Your task to perform on an android device: check android version Image 0: 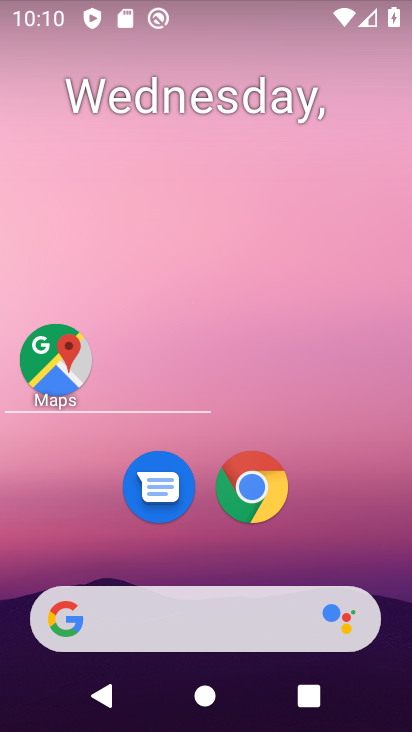
Step 0: click (218, 95)
Your task to perform on an android device: check android version Image 1: 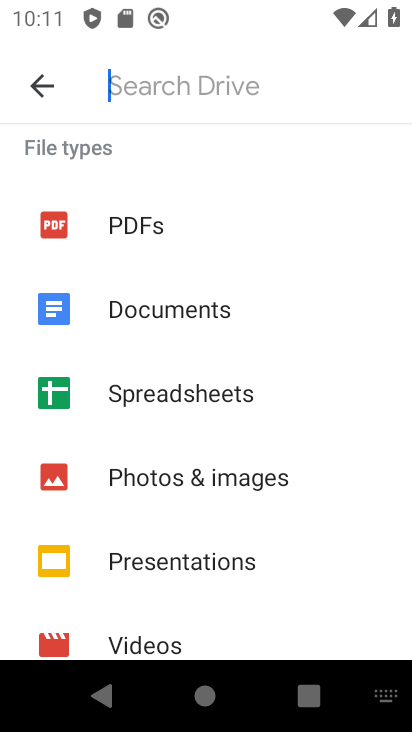
Step 1: press home button
Your task to perform on an android device: check android version Image 2: 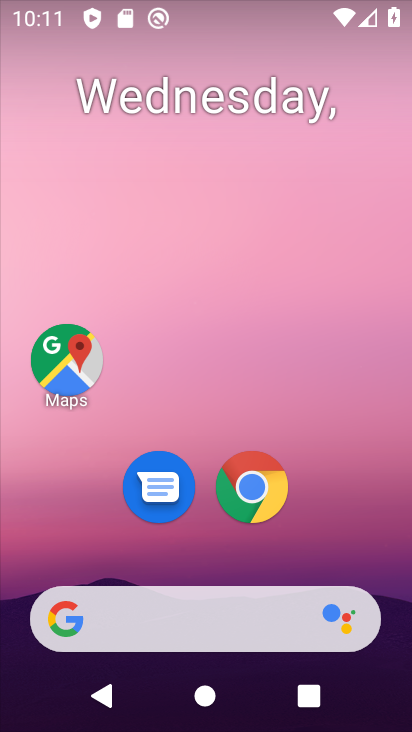
Step 2: drag from (402, 573) to (327, 127)
Your task to perform on an android device: check android version Image 3: 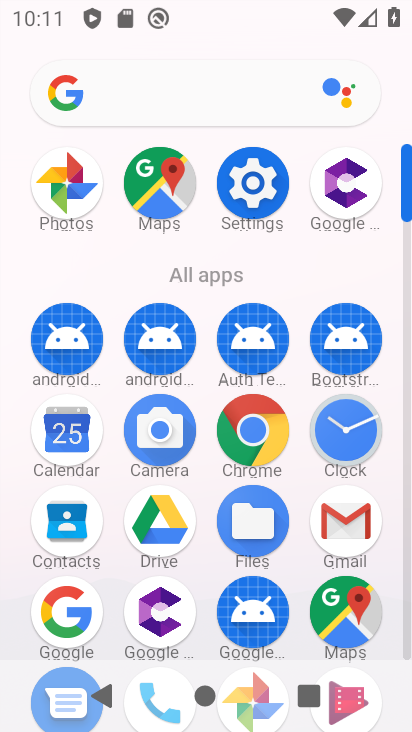
Step 3: click (273, 163)
Your task to perform on an android device: check android version Image 4: 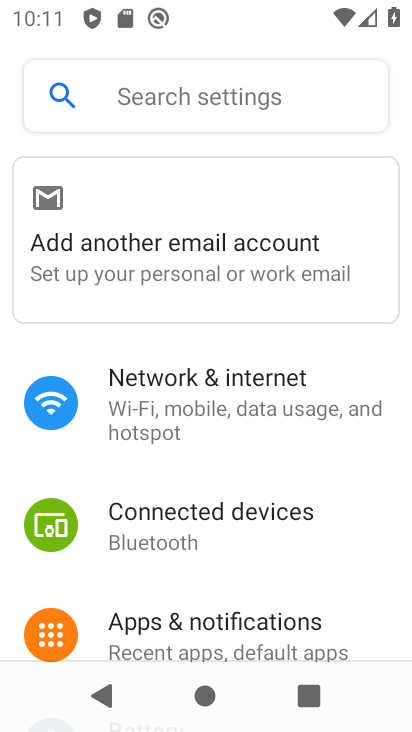
Step 4: drag from (345, 656) to (299, 316)
Your task to perform on an android device: check android version Image 5: 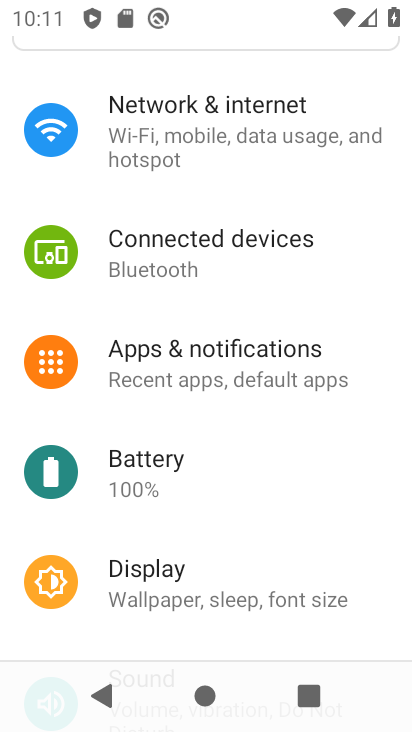
Step 5: drag from (285, 623) to (205, 58)
Your task to perform on an android device: check android version Image 6: 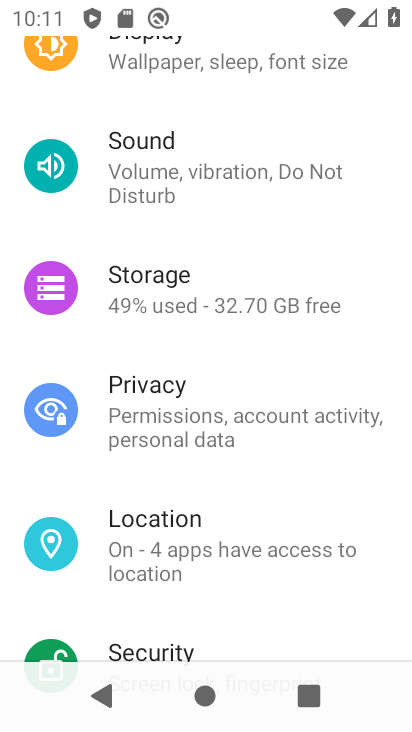
Step 6: drag from (181, 616) to (200, 16)
Your task to perform on an android device: check android version Image 7: 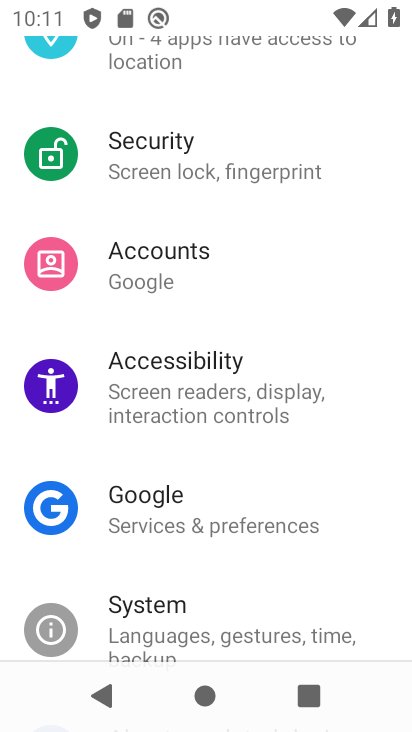
Step 7: drag from (199, 591) to (214, 180)
Your task to perform on an android device: check android version Image 8: 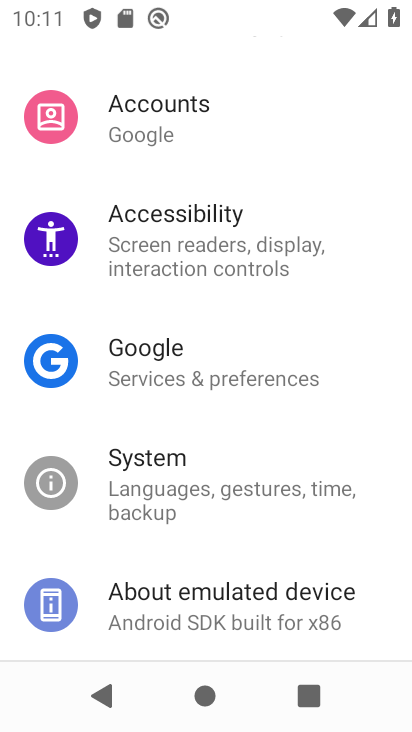
Step 8: click (236, 610)
Your task to perform on an android device: check android version Image 9: 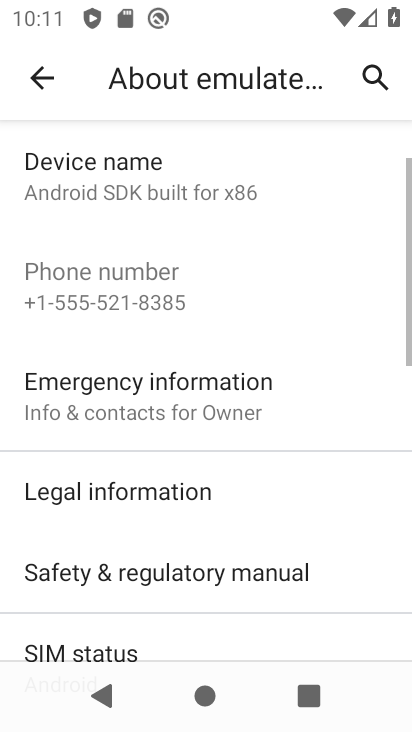
Step 9: drag from (240, 639) to (237, 137)
Your task to perform on an android device: check android version Image 10: 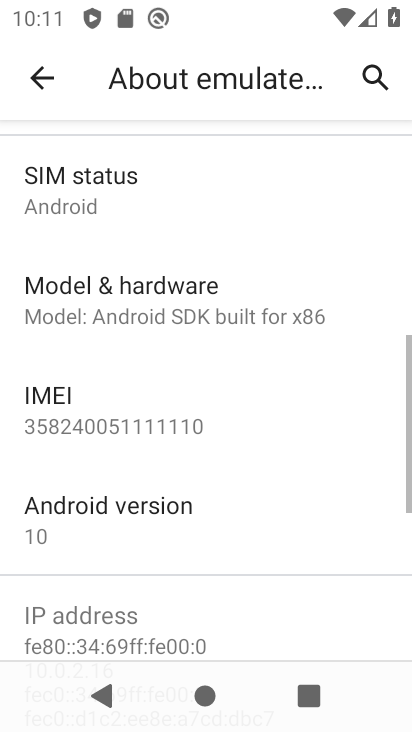
Step 10: click (179, 505)
Your task to perform on an android device: check android version Image 11: 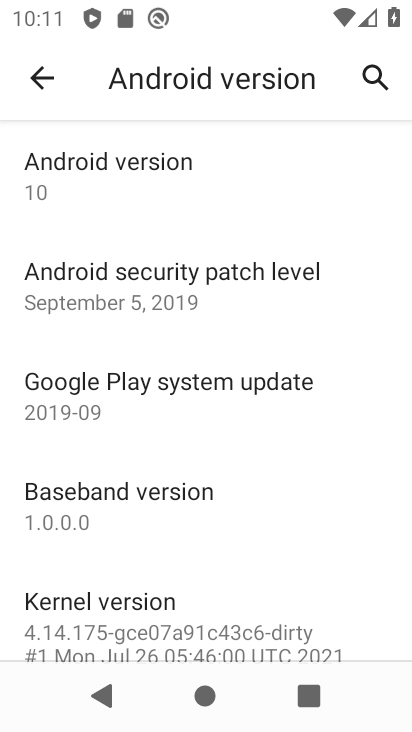
Step 11: task complete